Your task to perform on an android device: change the clock display to analog Image 0: 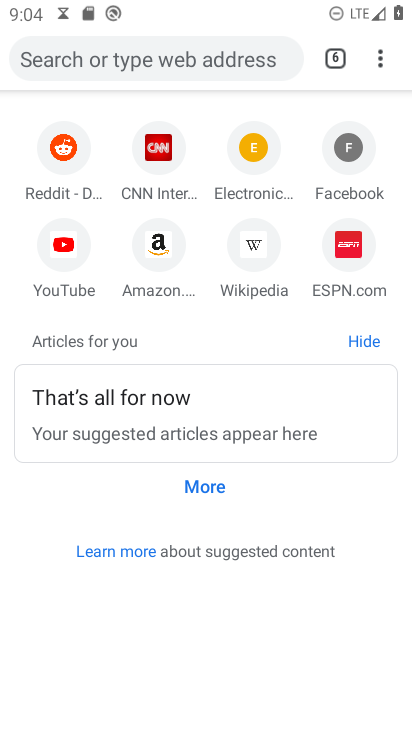
Step 0: press back button
Your task to perform on an android device: change the clock display to analog Image 1: 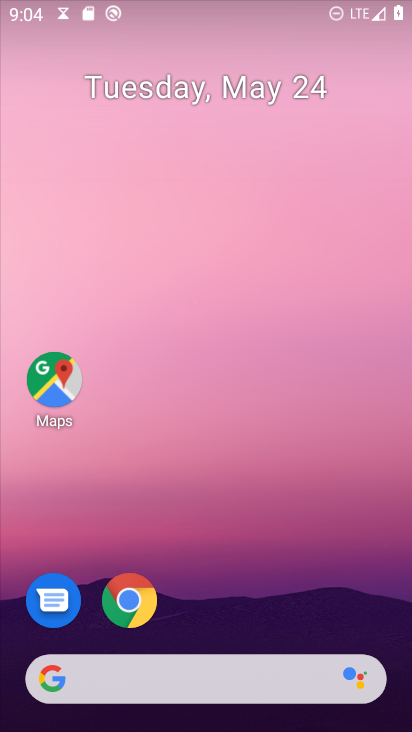
Step 1: drag from (151, 649) to (228, 138)
Your task to perform on an android device: change the clock display to analog Image 2: 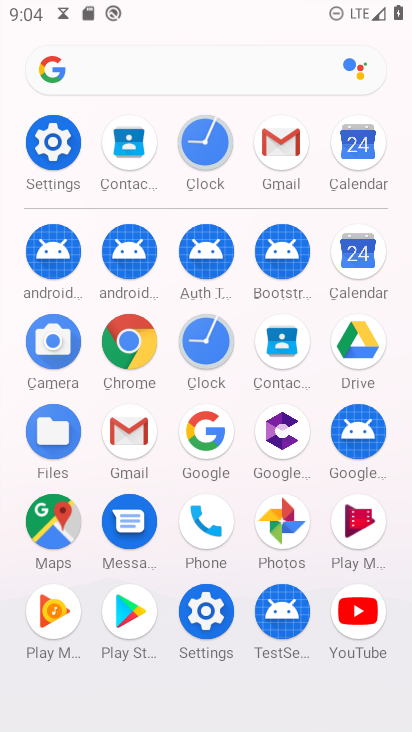
Step 2: click (208, 334)
Your task to perform on an android device: change the clock display to analog Image 3: 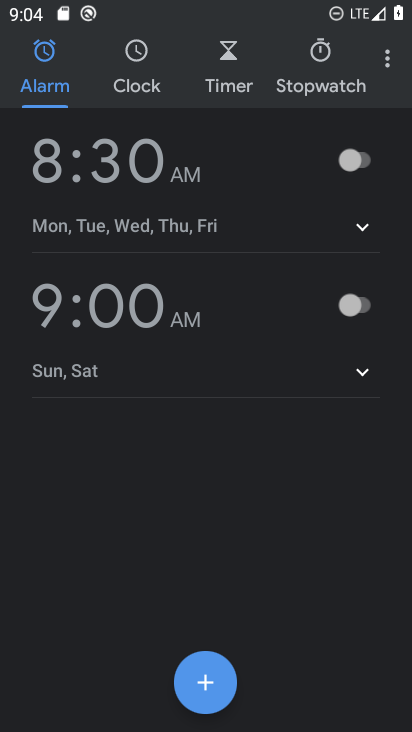
Step 3: click (382, 58)
Your task to perform on an android device: change the clock display to analog Image 4: 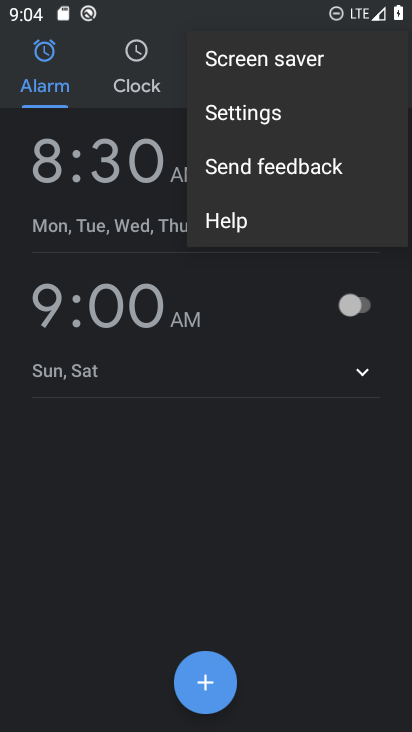
Step 4: click (307, 96)
Your task to perform on an android device: change the clock display to analog Image 5: 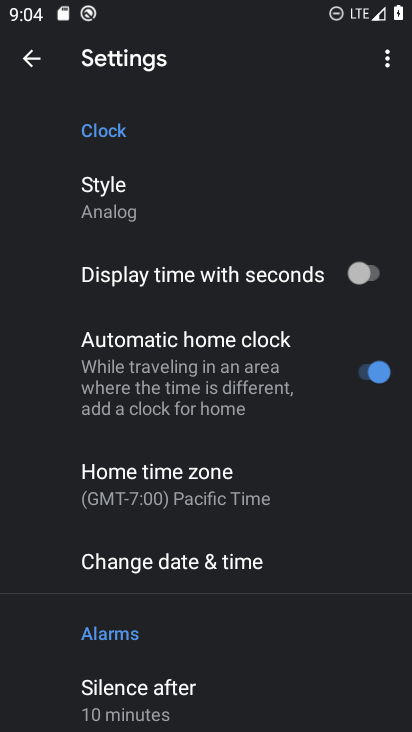
Step 5: task complete